Your task to perform on an android device: Open settings Image 0: 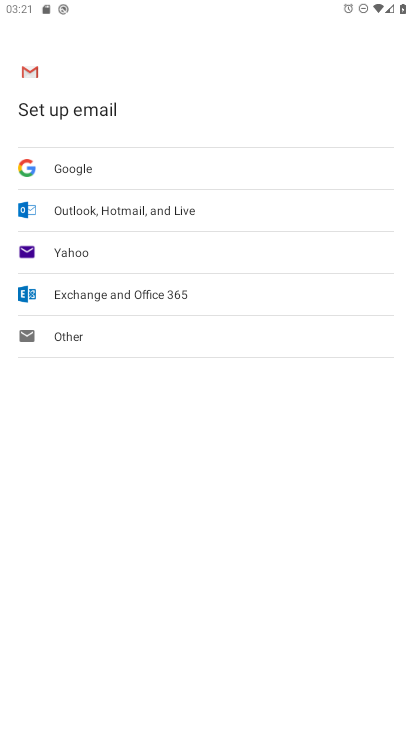
Step 0: press home button
Your task to perform on an android device: Open settings Image 1: 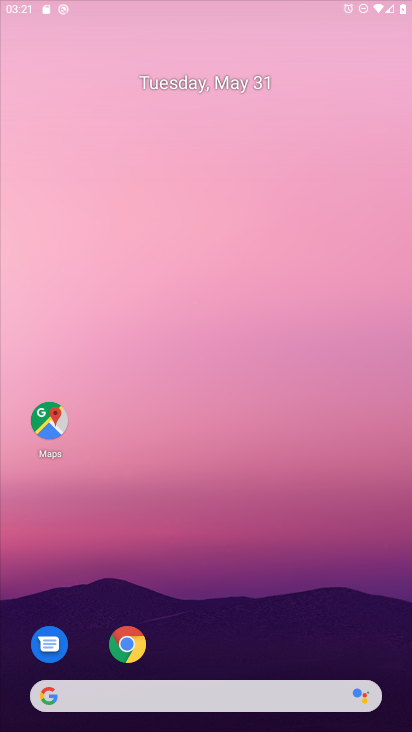
Step 1: drag from (312, 350) to (321, 9)
Your task to perform on an android device: Open settings Image 2: 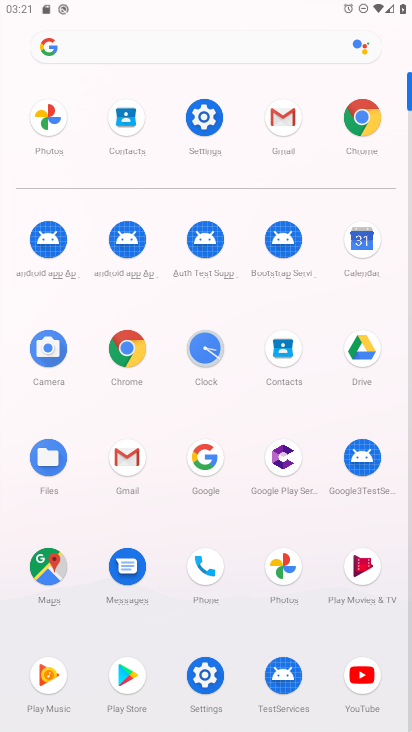
Step 2: click (210, 97)
Your task to perform on an android device: Open settings Image 3: 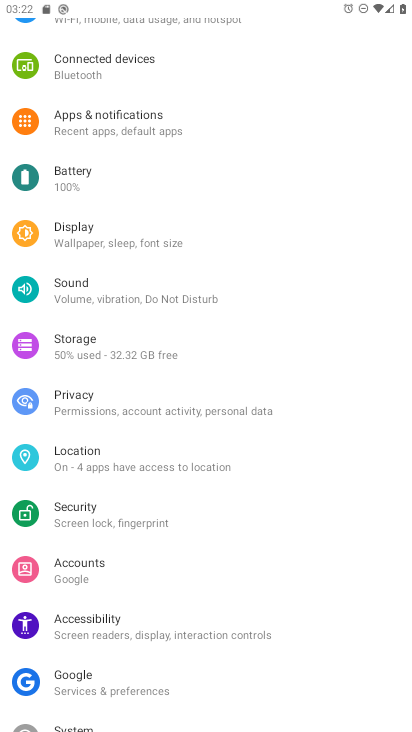
Step 3: task complete